Your task to perform on an android device: Go to Wikipedia Image 0: 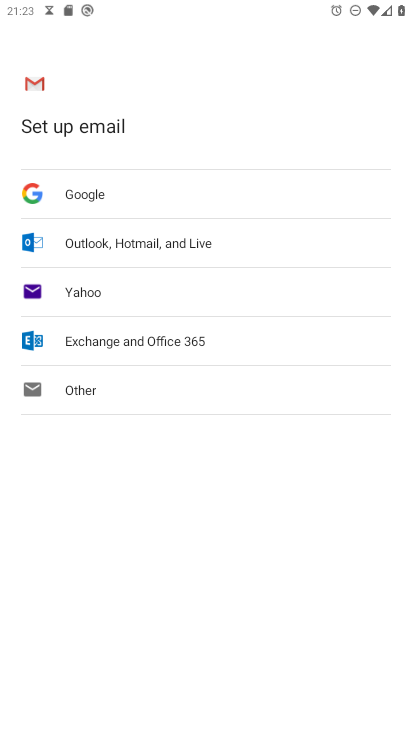
Step 0: press home button
Your task to perform on an android device: Go to Wikipedia Image 1: 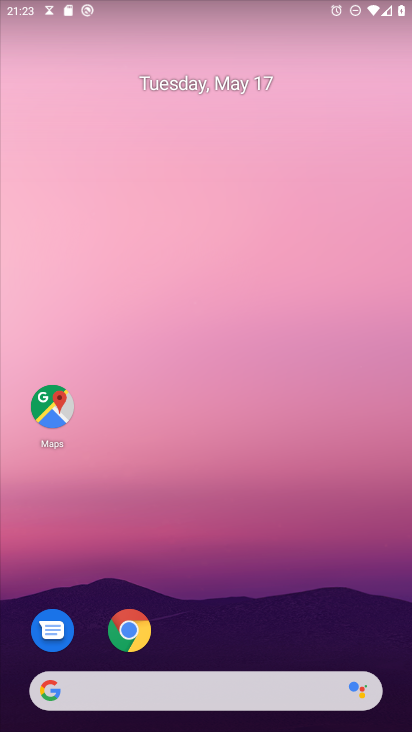
Step 1: click (123, 645)
Your task to perform on an android device: Go to Wikipedia Image 2: 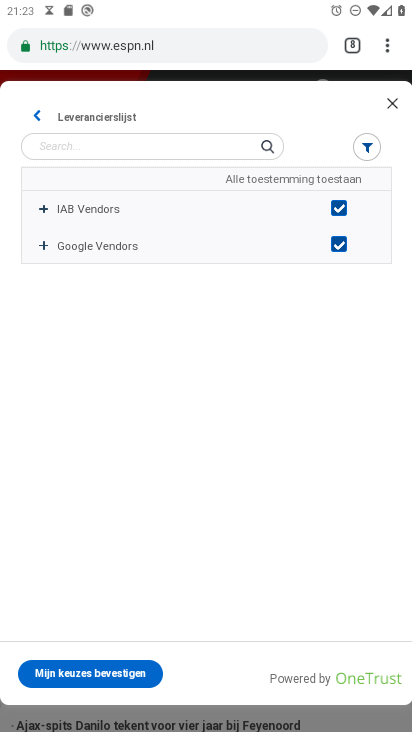
Step 2: click (353, 45)
Your task to perform on an android device: Go to Wikipedia Image 3: 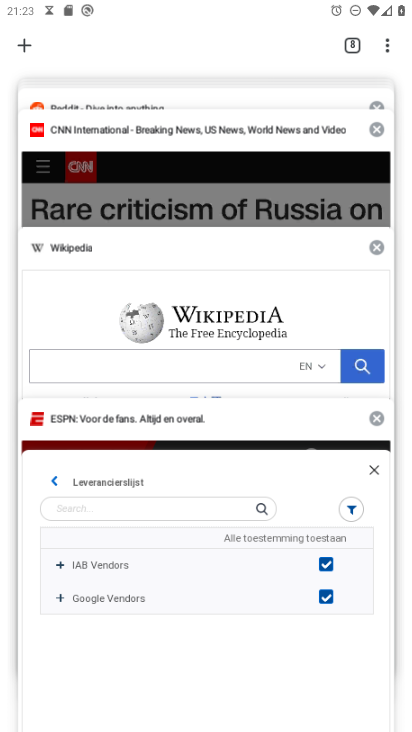
Step 3: click (123, 280)
Your task to perform on an android device: Go to Wikipedia Image 4: 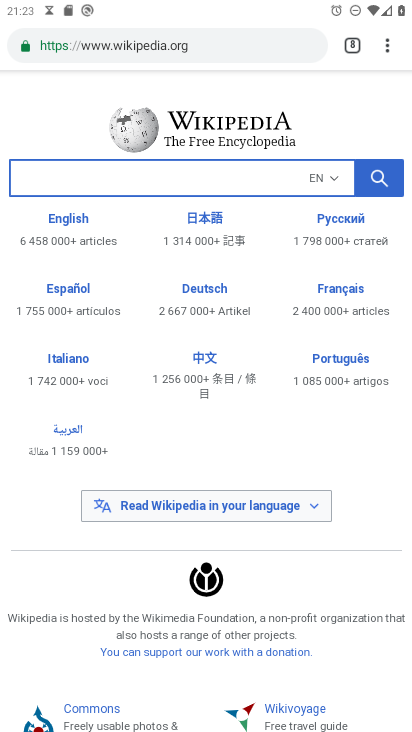
Step 4: task complete